Your task to perform on an android device: visit the assistant section in the google photos Image 0: 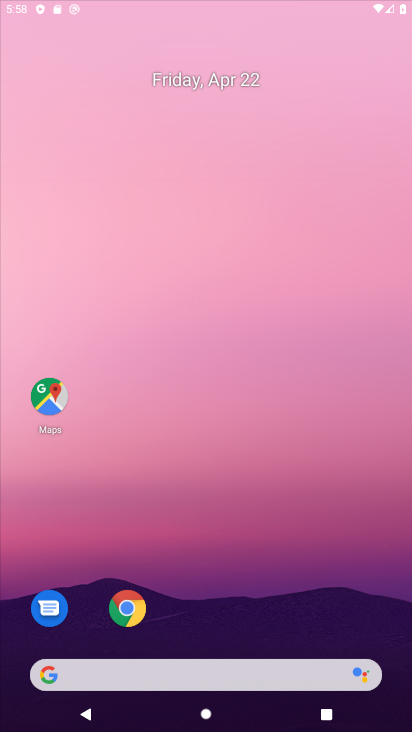
Step 0: click (234, 200)
Your task to perform on an android device: visit the assistant section in the google photos Image 1: 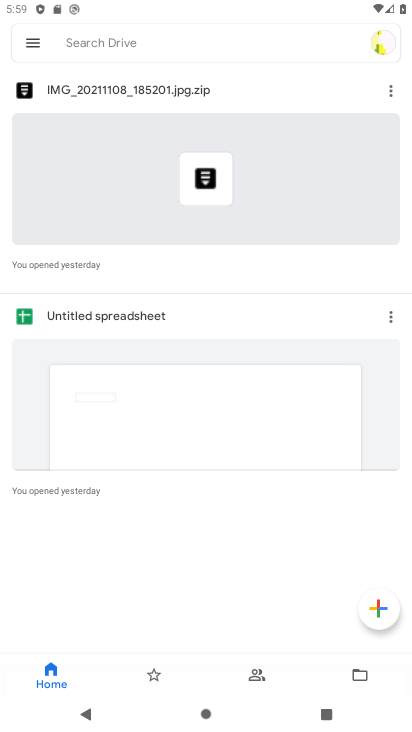
Step 1: press home button
Your task to perform on an android device: visit the assistant section in the google photos Image 2: 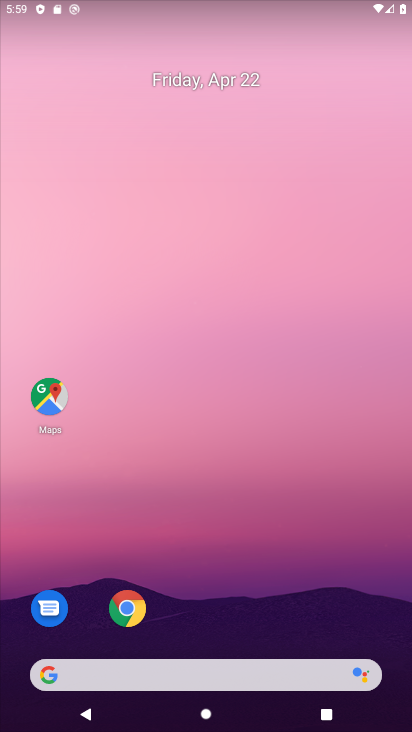
Step 2: drag from (272, 496) to (216, 213)
Your task to perform on an android device: visit the assistant section in the google photos Image 3: 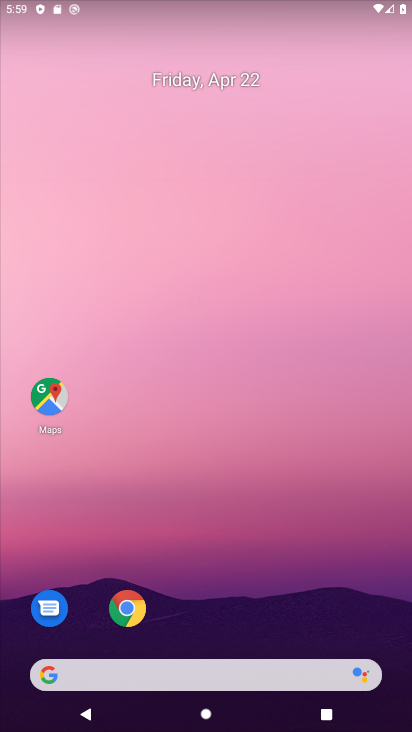
Step 3: drag from (284, 568) to (206, 191)
Your task to perform on an android device: visit the assistant section in the google photos Image 4: 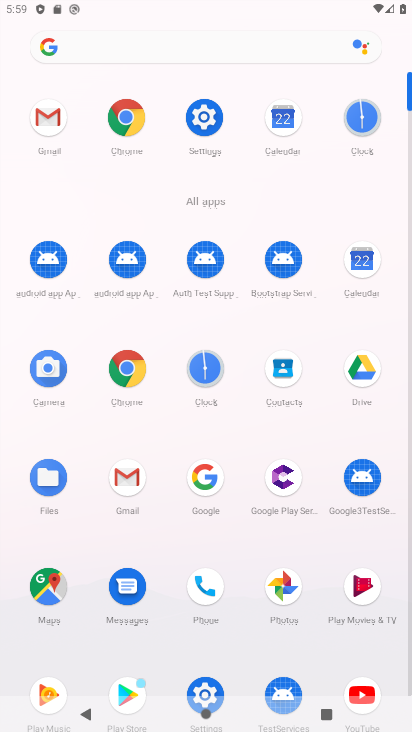
Step 4: click (288, 593)
Your task to perform on an android device: visit the assistant section in the google photos Image 5: 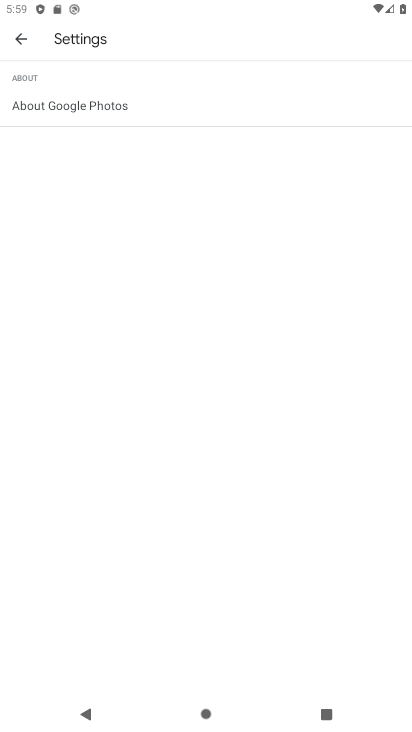
Step 5: click (19, 44)
Your task to perform on an android device: visit the assistant section in the google photos Image 6: 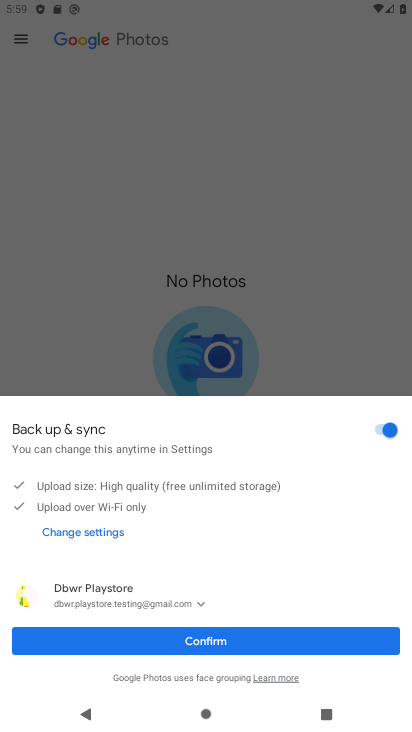
Step 6: click (220, 631)
Your task to perform on an android device: visit the assistant section in the google photos Image 7: 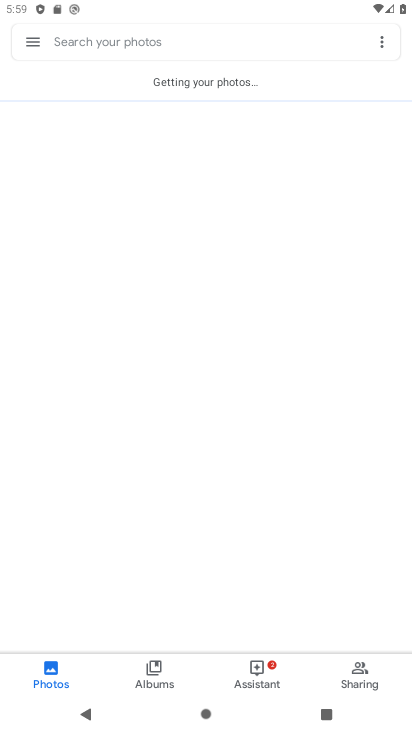
Step 7: click (270, 683)
Your task to perform on an android device: visit the assistant section in the google photos Image 8: 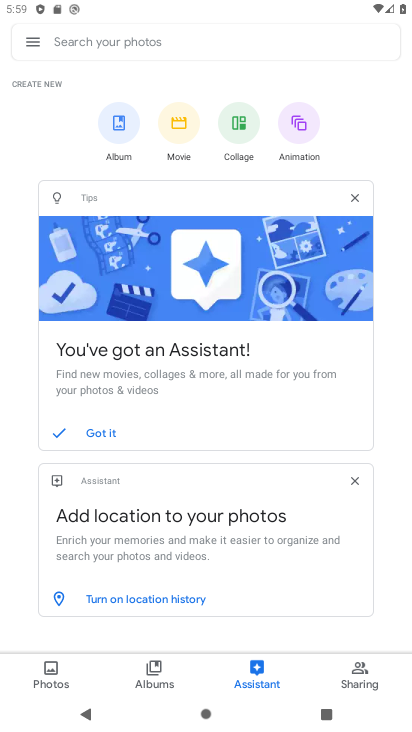
Step 8: task complete